Your task to perform on an android device: Show me the alarms in the clock app Image 0: 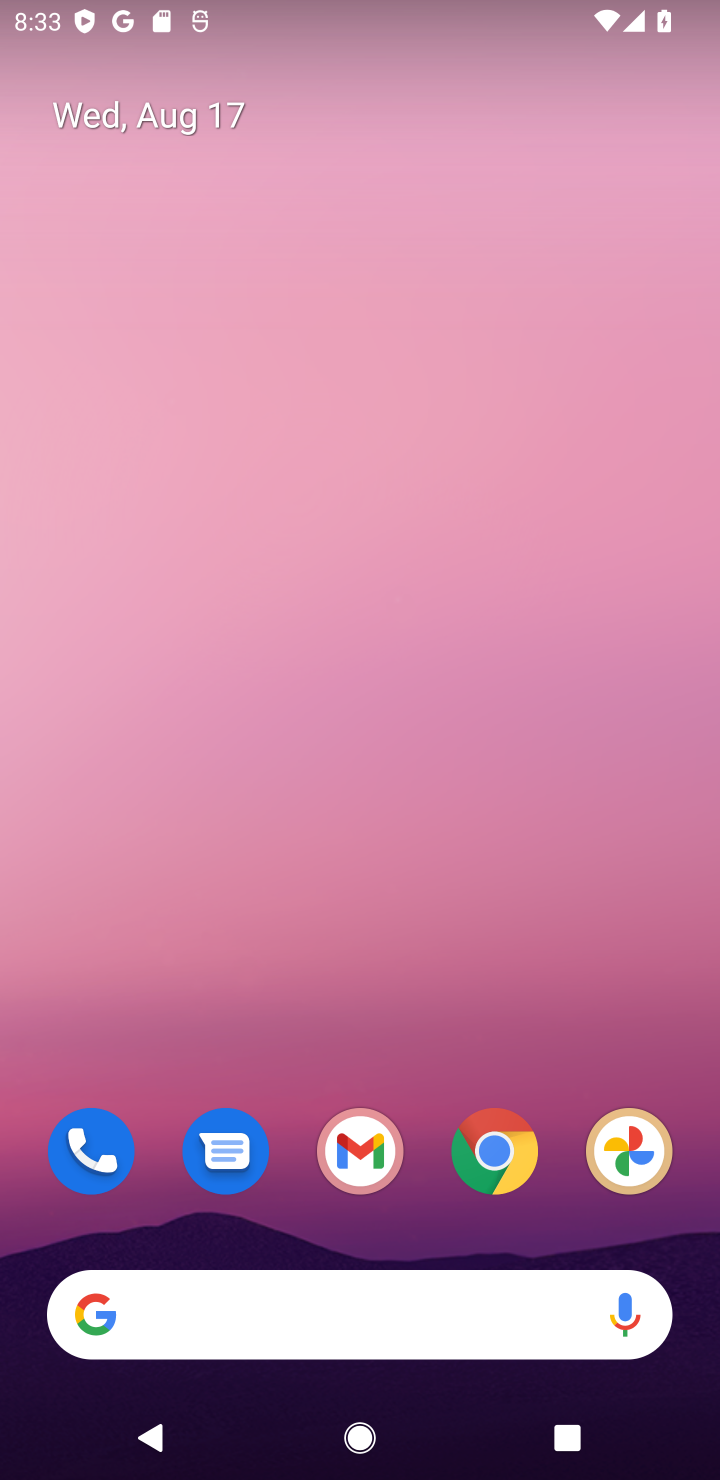
Step 0: drag from (374, 1203) to (500, 146)
Your task to perform on an android device: Show me the alarms in the clock app Image 1: 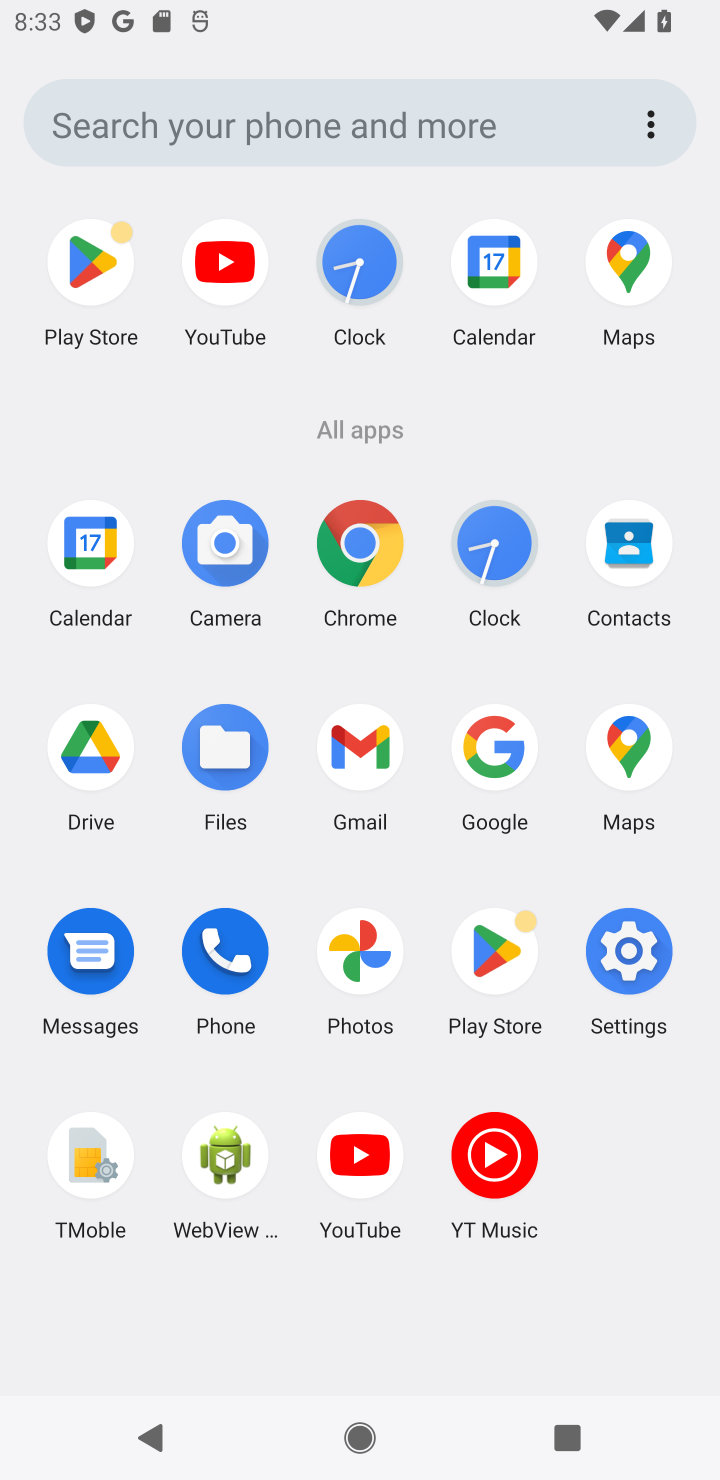
Step 1: click (485, 531)
Your task to perform on an android device: Show me the alarms in the clock app Image 2: 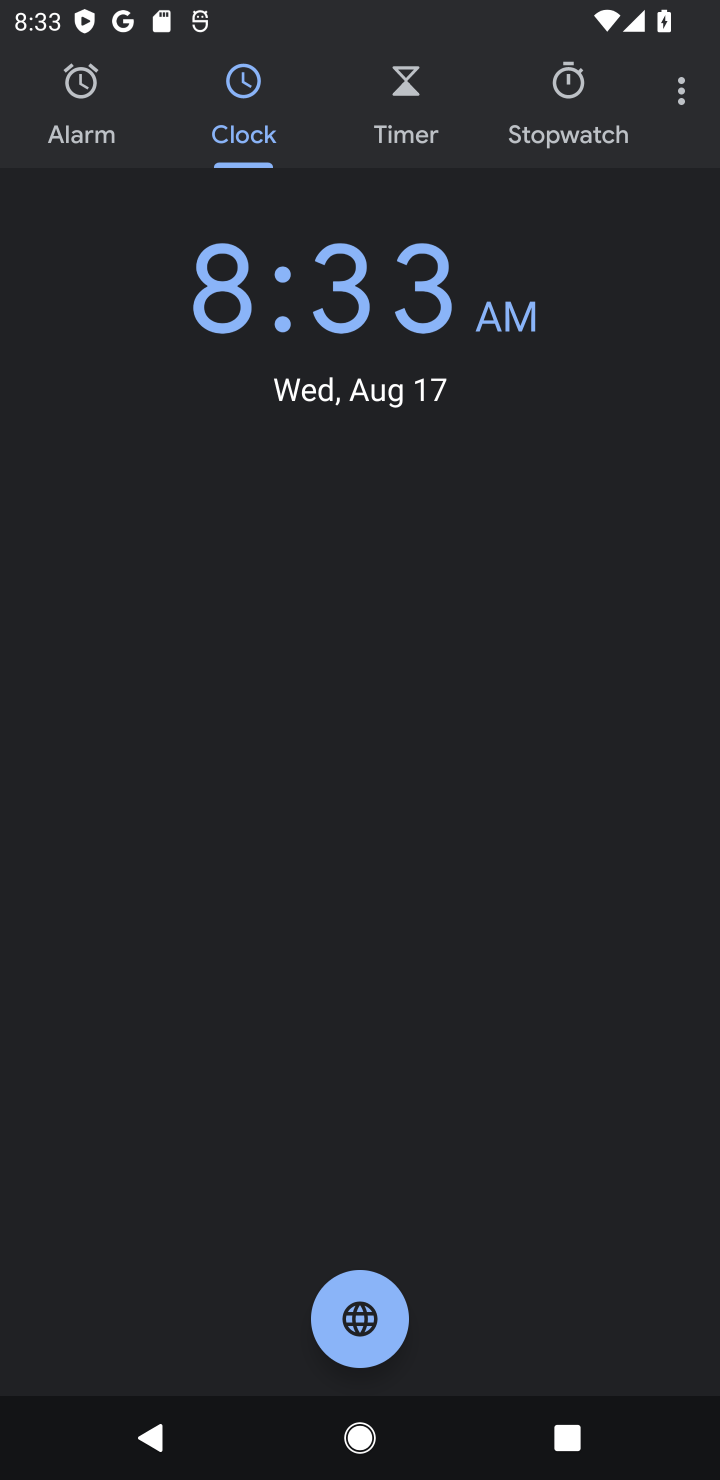
Step 2: click (689, 105)
Your task to perform on an android device: Show me the alarms in the clock app Image 3: 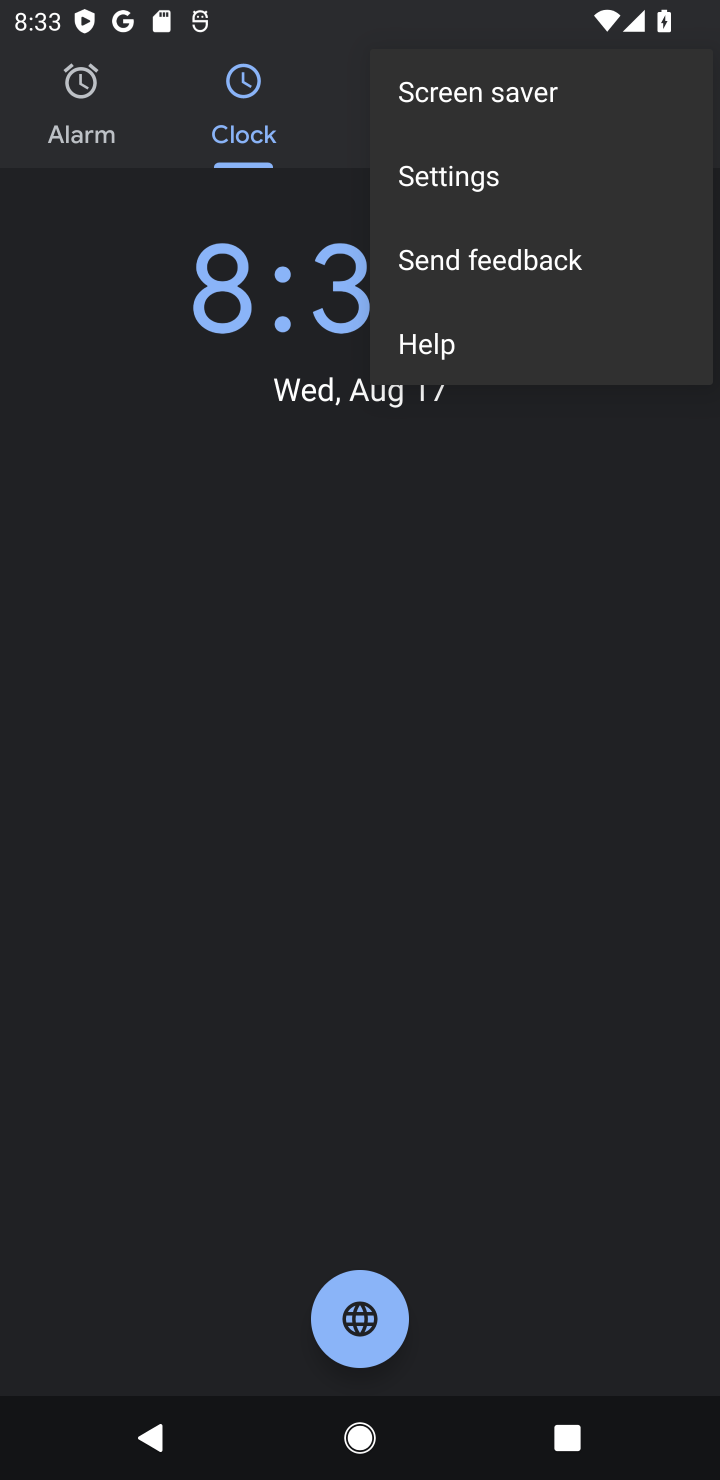
Step 3: click (448, 185)
Your task to perform on an android device: Show me the alarms in the clock app Image 4: 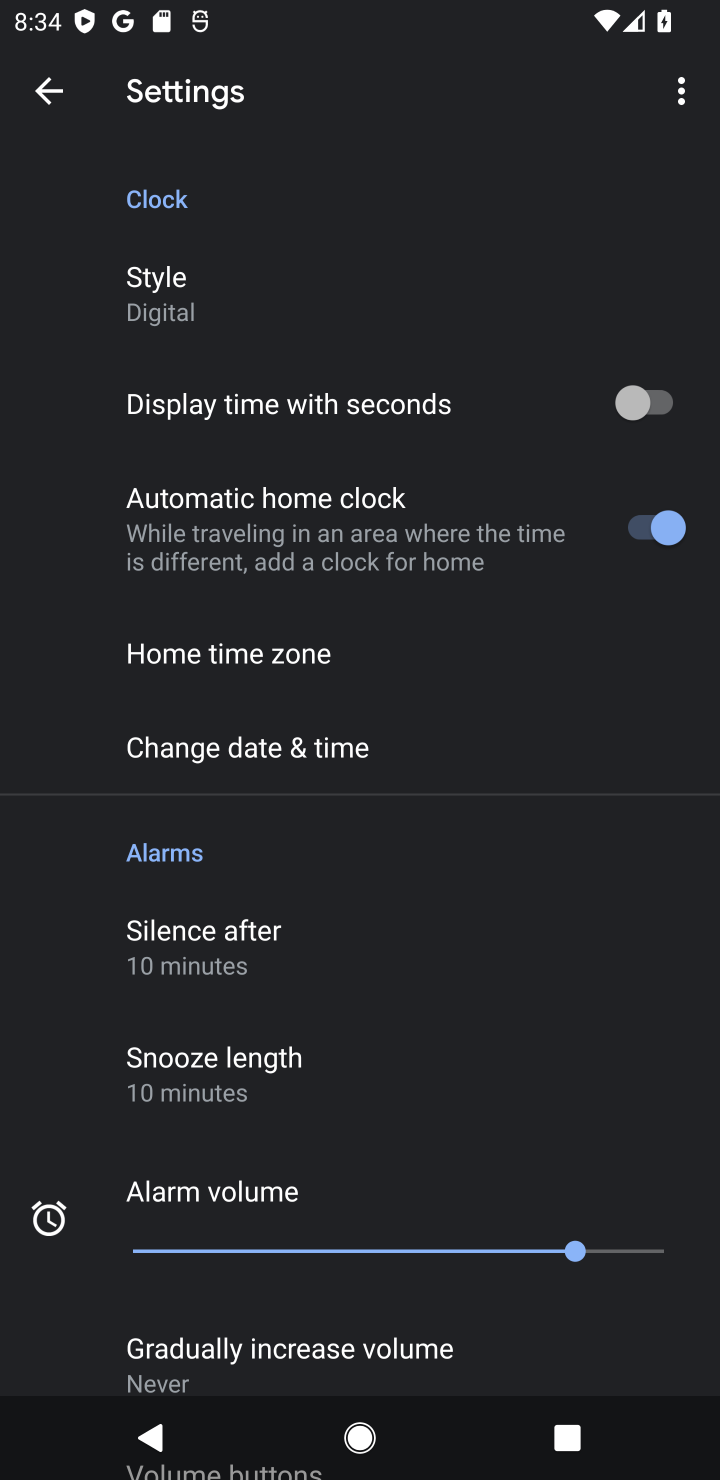
Step 4: click (48, 78)
Your task to perform on an android device: Show me the alarms in the clock app Image 5: 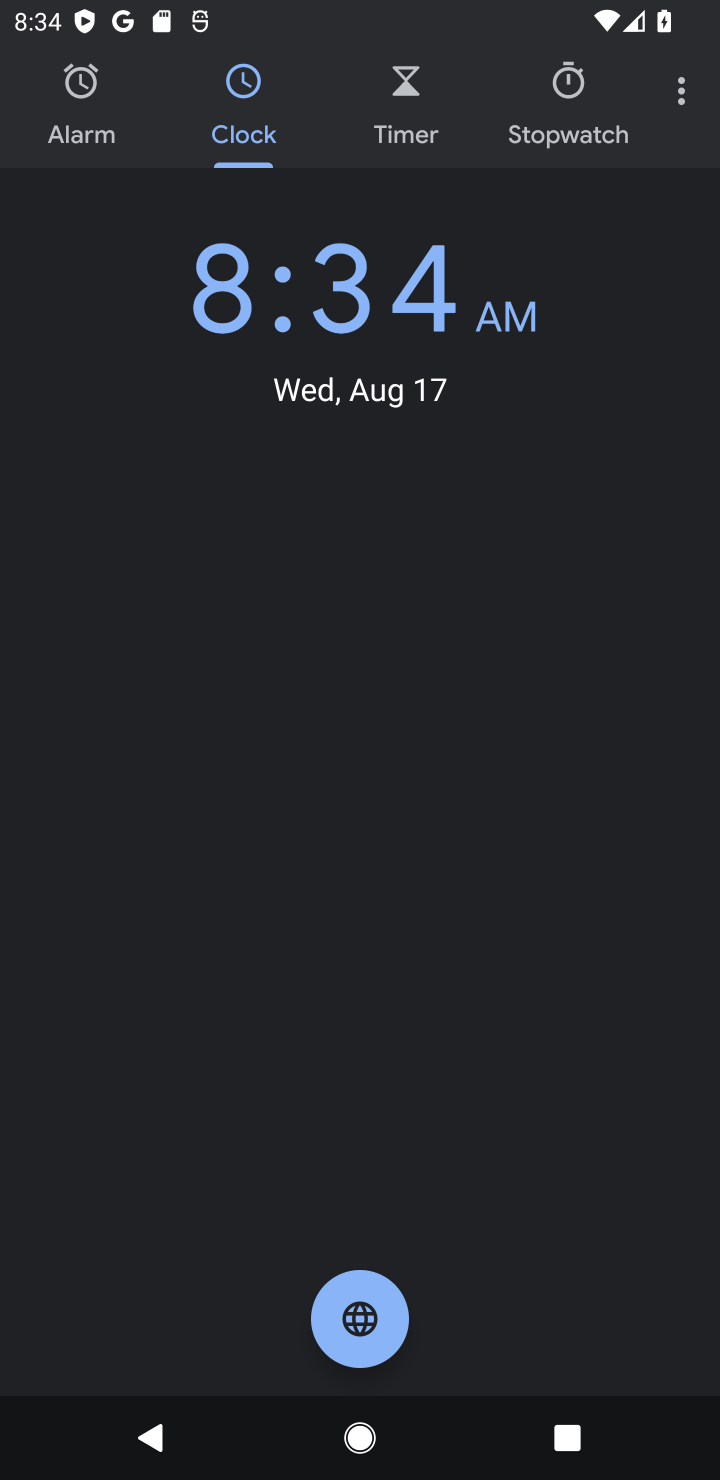
Step 5: click (74, 106)
Your task to perform on an android device: Show me the alarms in the clock app Image 6: 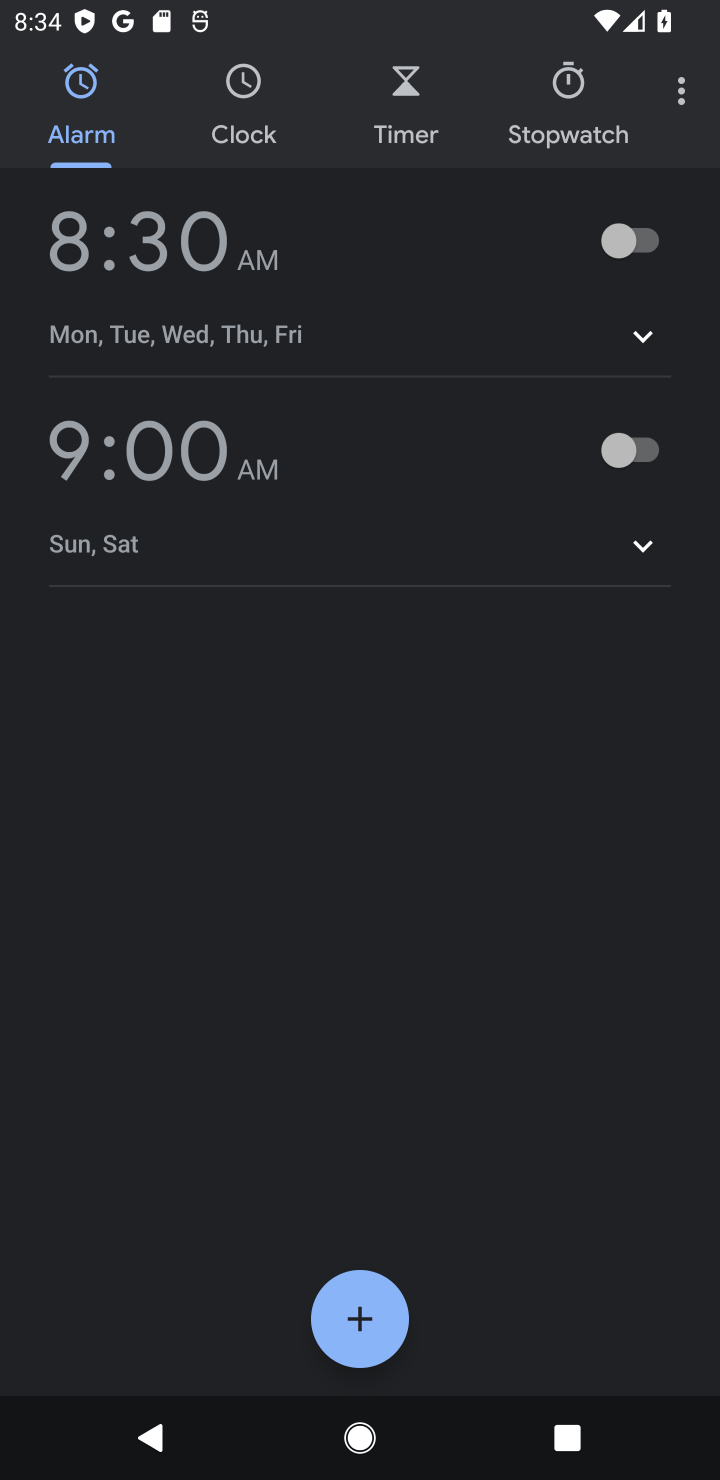
Step 6: task complete